Your task to perform on an android device: View the shopping cart on costco.com. Search for asus zenbook on costco.com, select the first entry, add it to the cart, then select checkout. Image 0: 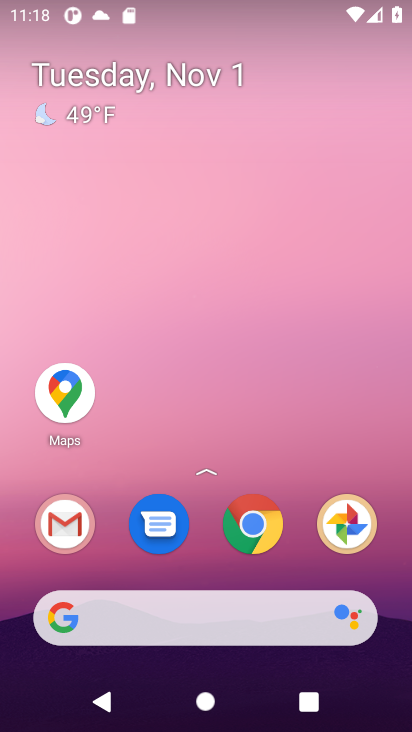
Step 0: press home button
Your task to perform on an android device: View the shopping cart on costco.com. Search for asus zenbook on costco.com, select the first entry, add it to the cart, then select checkout. Image 1: 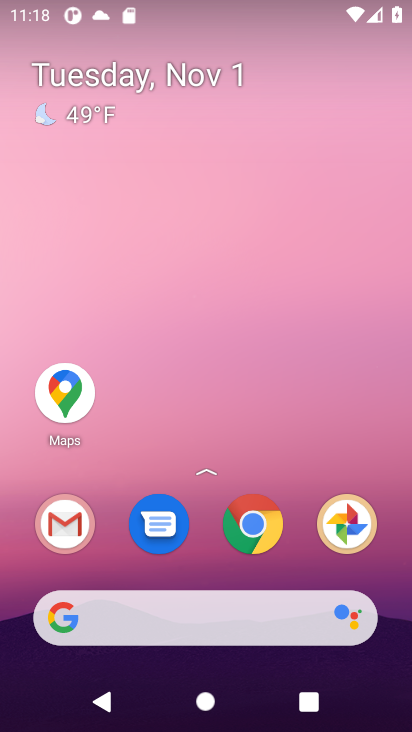
Step 1: click (87, 625)
Your task to perform on an android device: View the shopping cart on costco.com. Search for asus zenbook on costco.com, select the first entry, add it to the cart, then select checkout. Image 2: 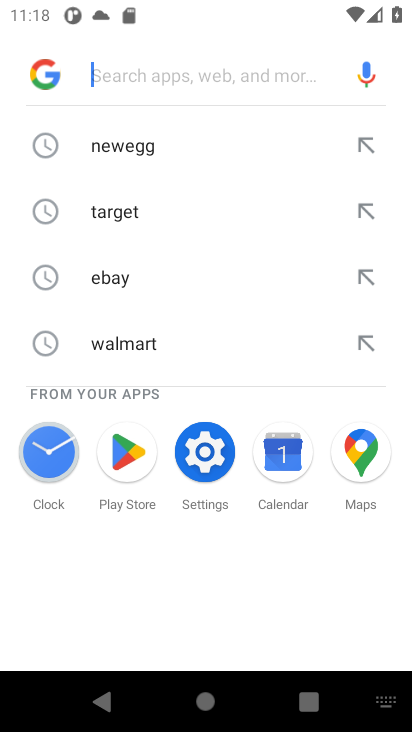
Step 2: type "costco.com"
Your task to perform on an android device: View the shopping cart on costco.com. Search for asus zenbook on costco.com, select the first entry, add it to the cart, then select checkout. Image 3: 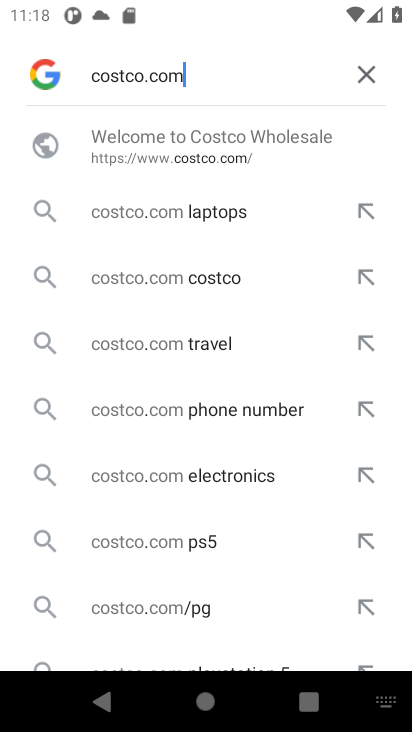
Step 3: press enter
Your task to perform on an android device: View the shopping cart on costco.com. Search for asus zenbook on costco.com, select the first entry, add it to the cart, then select checkout. Image 4: 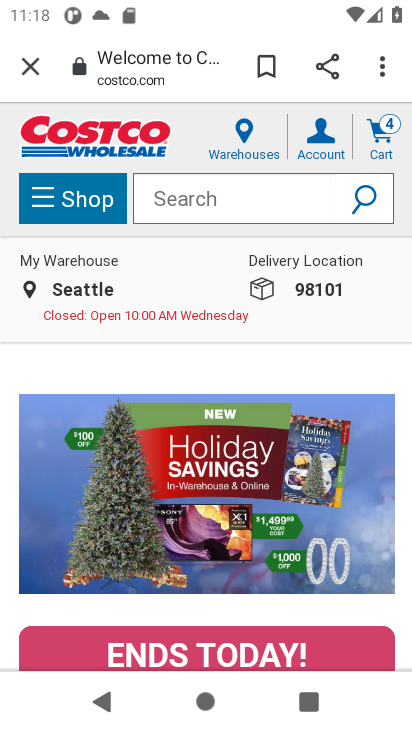
Step 4: click (386, 133)
Your task to perform on an android device: View the shopping cart on costco.com. Search for asus zenbook on costco.com, select the first entry, add it to the cart, then select checkout. Image 5: 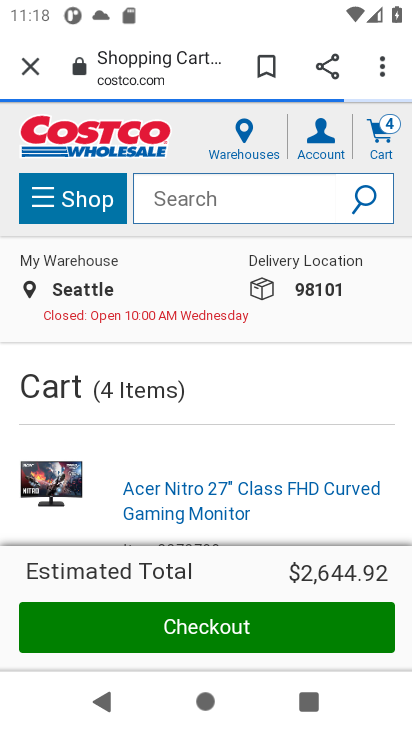
Step 5: click (191, 194)
Your task to perform on an android device: View the shopping cart on costco.com. Search for asus zenbook on costco.com, select the first entry, add it to the cart, then select checkout. Image 6: 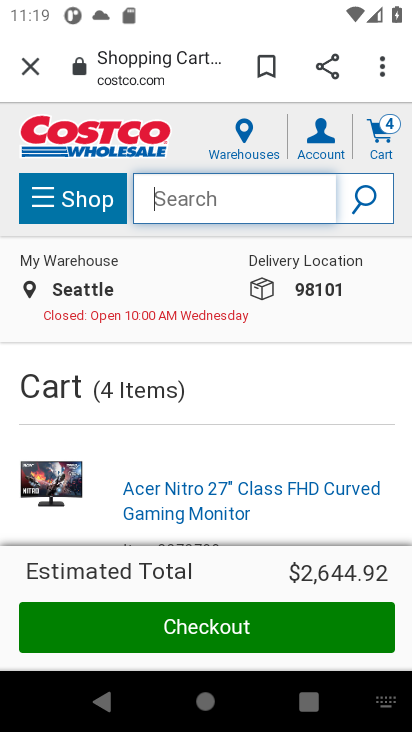
Step 6: type "asus zenbook"
Your task to perform on an android device: View the shopping cart on costco.com. Search for asus zenbook on costco.com, select the first entry, add it to the cart, then select checkout. Image 7: 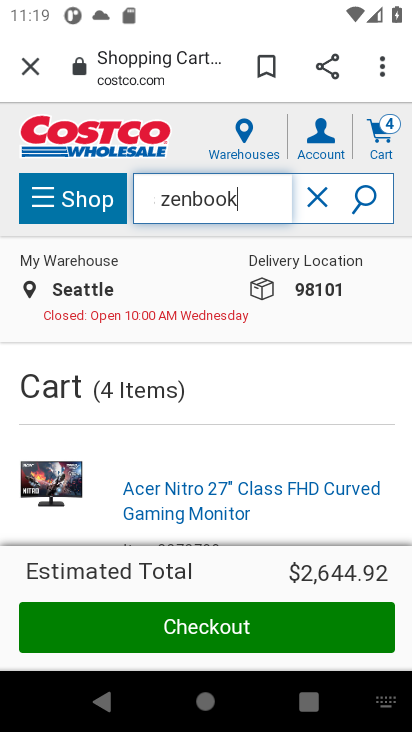
Step 7: press enter
Your task to perform on an android device: View the shopping cart on costco.com. Search for asus zenbook on costco.com, select the first entry, add it to the cart, then select checkout. Image 8: 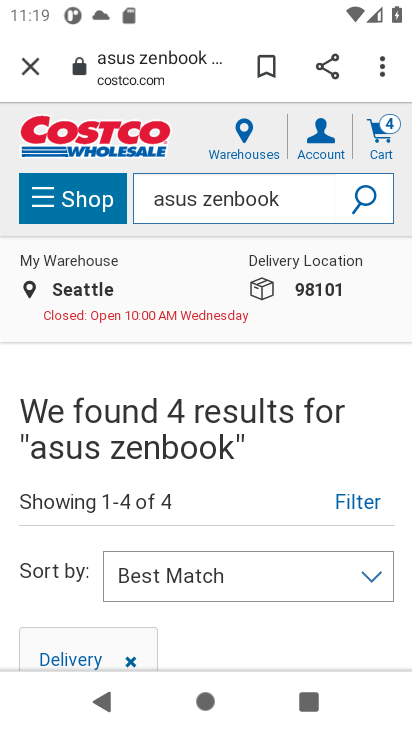
Step 8: drag from (208, 581) to (220, 331)
Your task to perform on an android device: View the shopping cart on costco.com. Search for asus zenbook on costco.com, select the first entry, add it to the cart, then select checkout. Image 9: 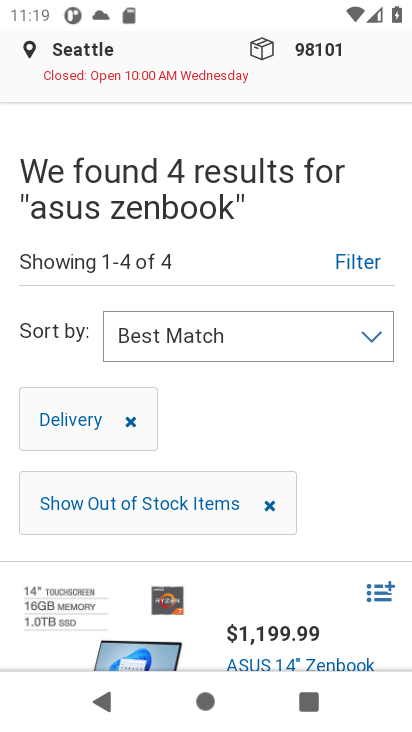
Step 9: drag from (214, 506) to (226, 264)
Your task to perform on an android device: View the shopping cart on costco.com. Search for asus zenbook on costco.com, select the first entry, add it to the cart, then select checkout. Image 10: 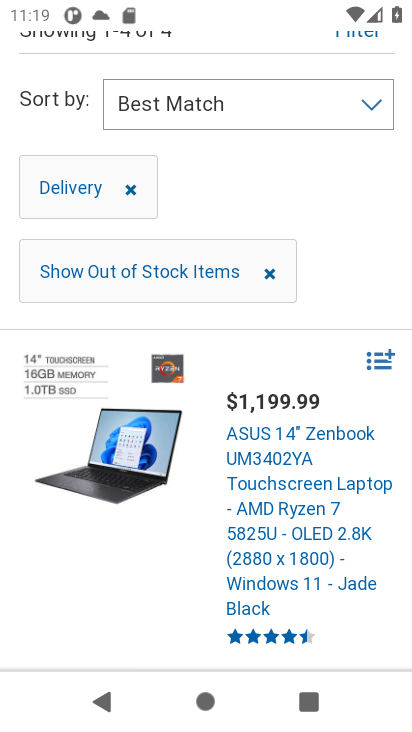
Step 10: drag from (233, 471) to (237, 229)
Your task to perform on an android device: View the shopping cart on costco.com. Search for asus zenbook on costco.com, select the first entry, add it to the cart, then select checkout. Image 11: 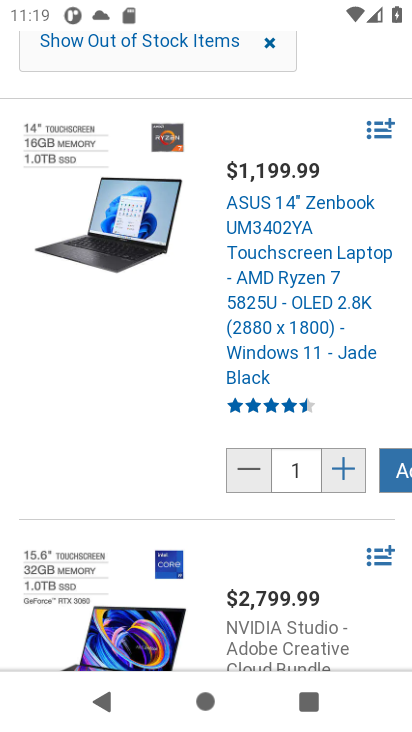
Step 11: click (399, 471)
Your task to perform on an android device: View the shopping cart on costco.com. Search for asus zenbook on costco.com, select the first entry, add it to the cart, then select checkout. Image 12: 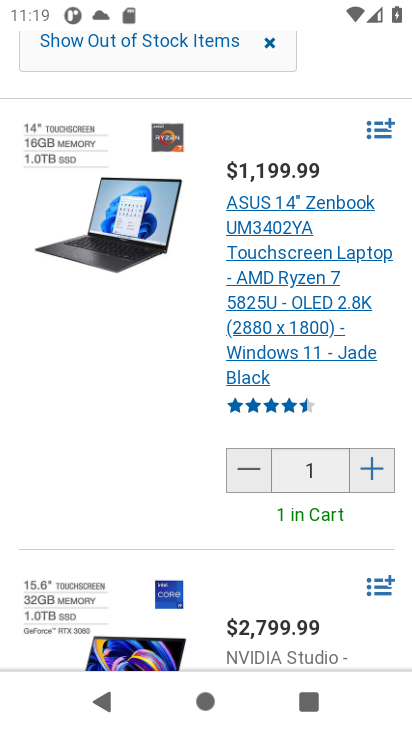
Step 12: drag from (314, 186) to (296, 511)
Your task to perform on an android device: View the shopping cart on costco.com. Search for asus zenbook on costco.com, select the first entry, add it to the cart, then select checkout. Image 13: 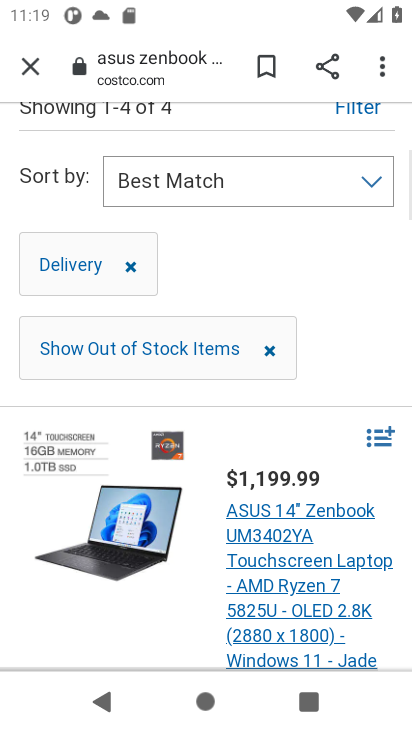
Step 13: drag from (298, 140) to (299, 575)
Your task to perform on an android device: View the shopping cart on costco.com. Search for asus zenbook on costco.com, select the first entry, add it to the cart, then select checkout. Image 14: 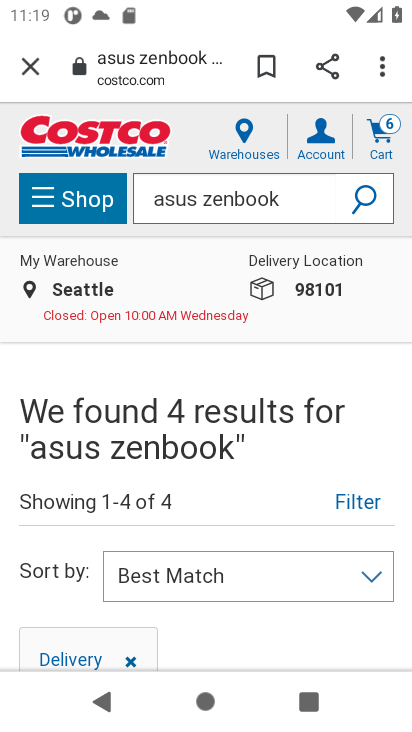
Step 14: click (375, 132)
Your task to perform on an android device: View the shopping cart on costco.com. Search for asus zenbook on costco.com, select the first entry, add it to the cart, then select checkout. Image 15: 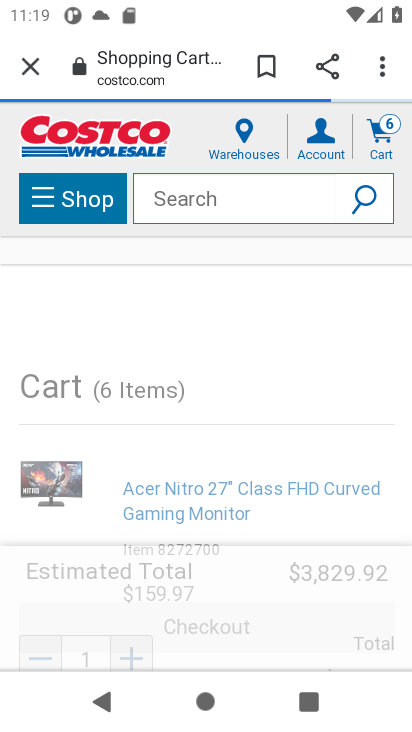
Step 15: click (241, 623)
Your task to perform on an android device: View the shopping cart on costco.com. Search for asus zenbook on costco.com, select the first entry, add it to the cart, then select checkout. Image 16: 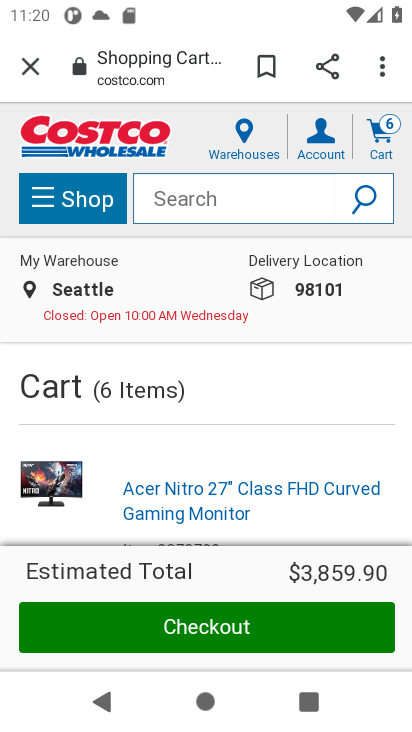
Step 16: click (194, 630)
Your task to perform on an android device: View the shopping cart on costco.com. Search for asus zenbook on costco.com, select the first entry, add it to the cart, then select checkout. Image 17: 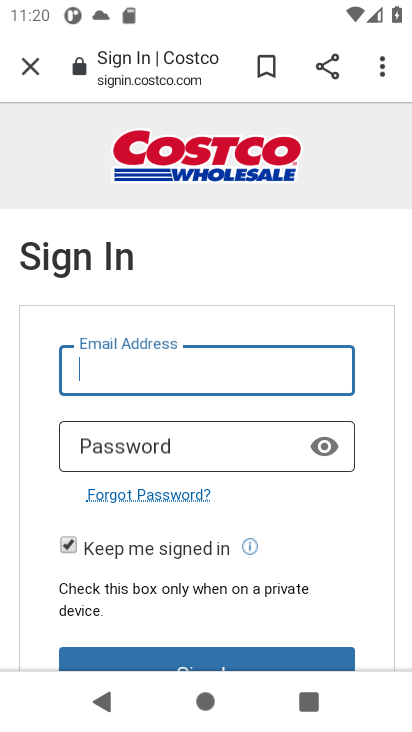
Step 17: task complete